Your task to perform on an android device: turn on wifi Image 0: 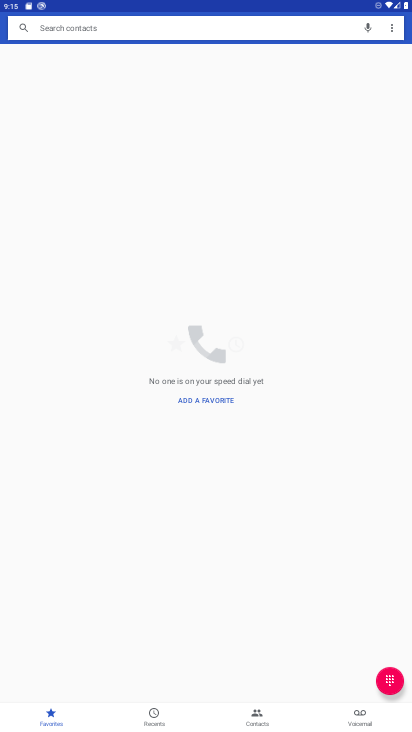
Step 0: press home button
Your task to perform on an android device: turn on wifi Image 1: 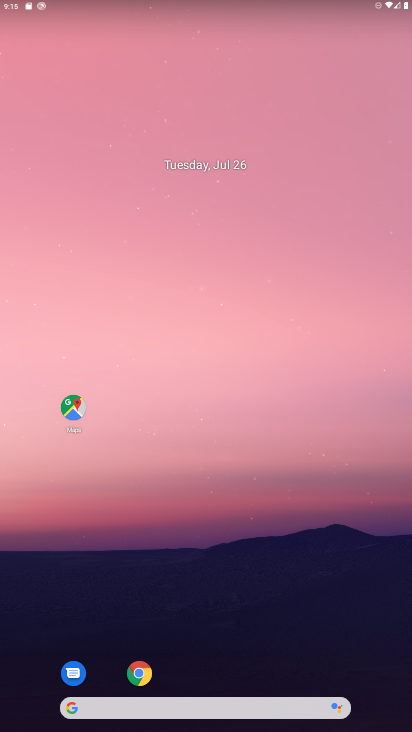
Step 1: drag from (249, 651) to (282, 4)
Your task to perform on an android device: turn on wifi Image 2: 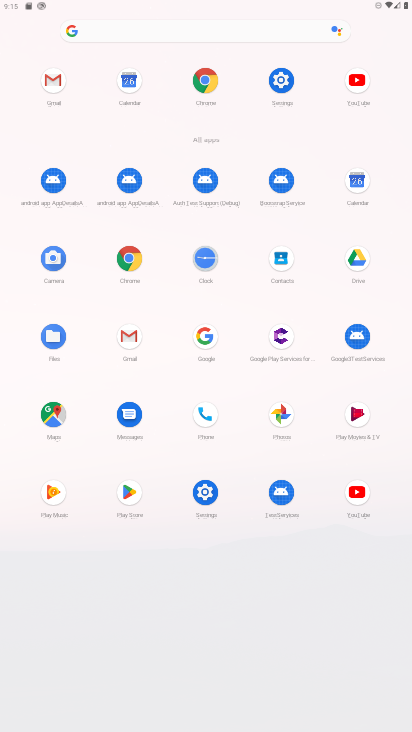
Step 2: click (278, 80)
Your task to perform on an android device: turn on wifi Image 3: 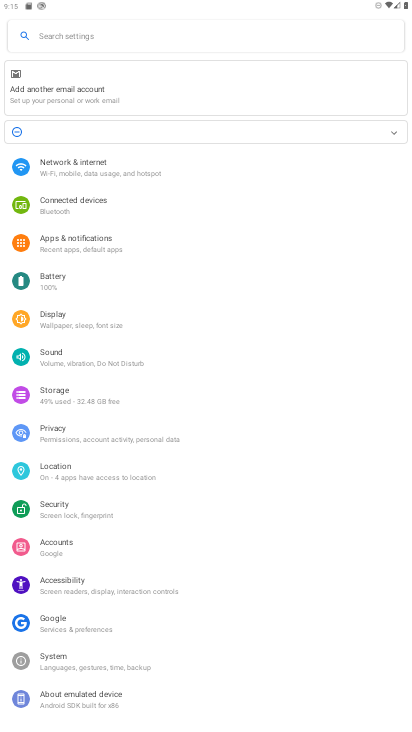
Step 3: click (31, 165)
Your task to perform on an android device: turn on wifi Image 4: 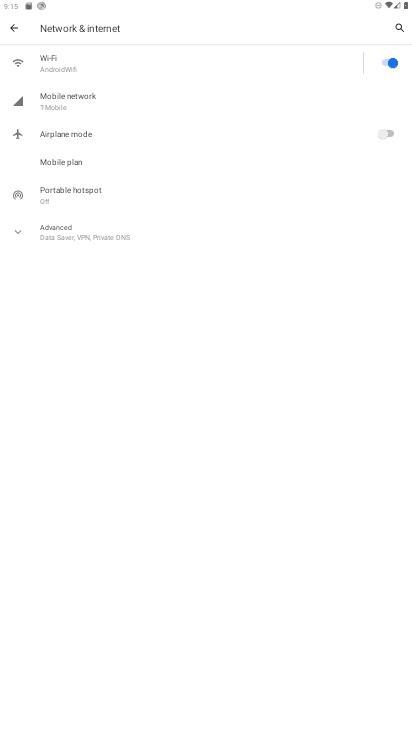
Step 4: task complete